Your task to perform on an android device: Open notification settings Image 0: 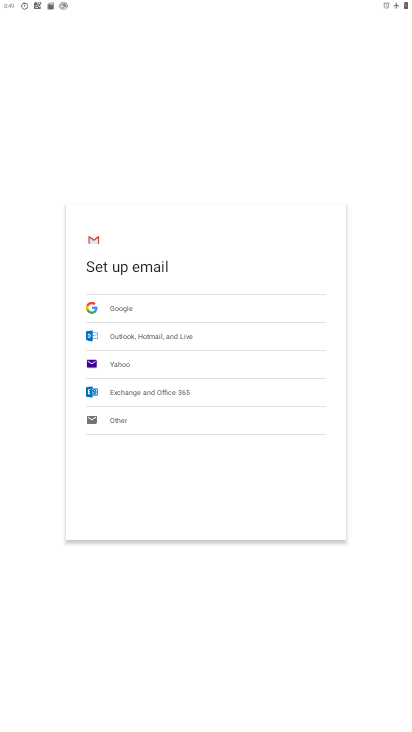
Step 0: press home button
Your task to perform on an android device: Open notification settings Image 1: 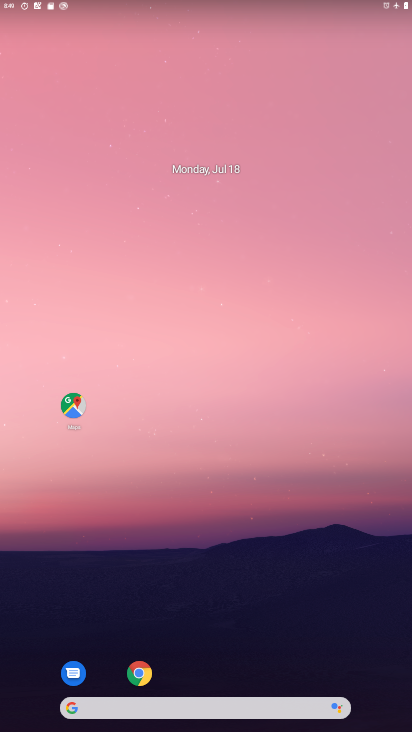
Step 1: drag from (194, 637) to (171, 208)
Your task to perform on an android device: Open notification settings Image 2: 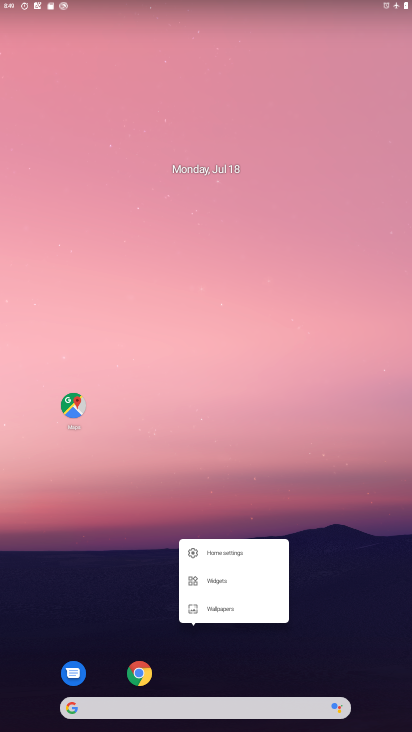
Step 2: click (273, 672)
Your task to perform on an android device: Open notification settings Image 3: 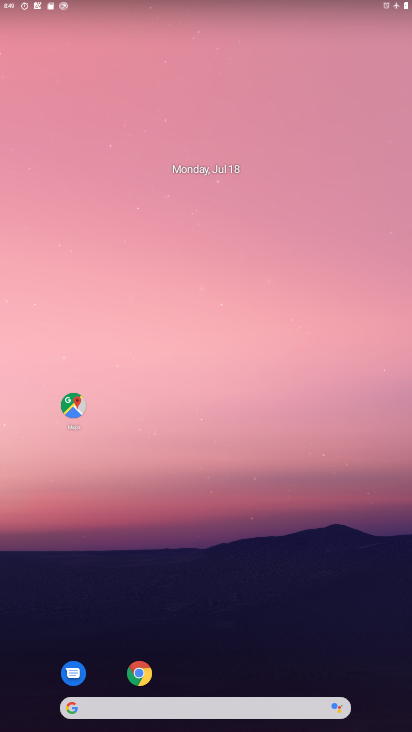
Step 3: drag from (192, 263) to (195, 24)
Your task to perform on an android device: Open notification settings Image 4: 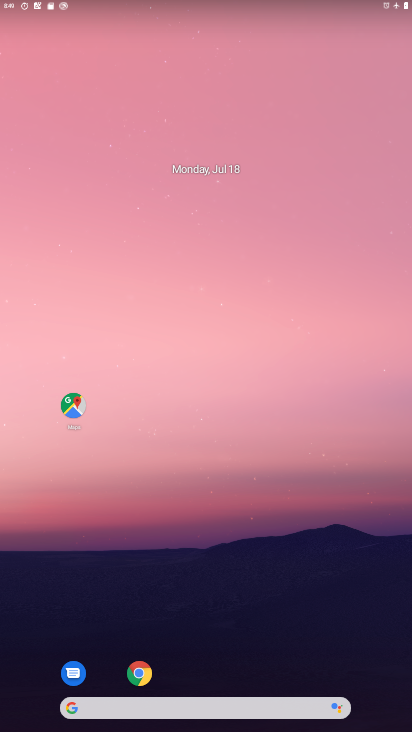
Step 4: drag from (198, 538) to (197, 200)
Your task to perform on an android device: Open notification settings Image 5: 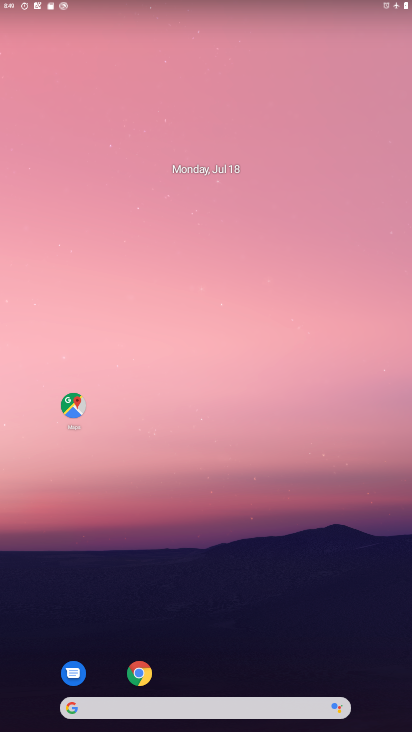
Step 5: drag from (187, 570) to (160, 9)
Your task to perform on an android device: Open notification settings Image 6: 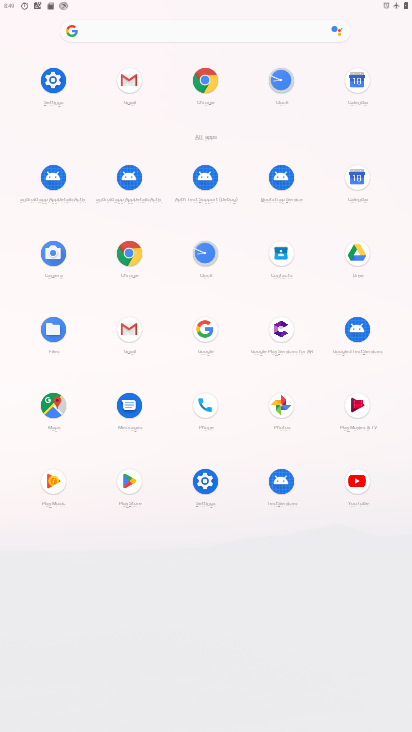
Step 6: click (210, 492)
Your task to perform on an android device: Open notification settings Image 7: 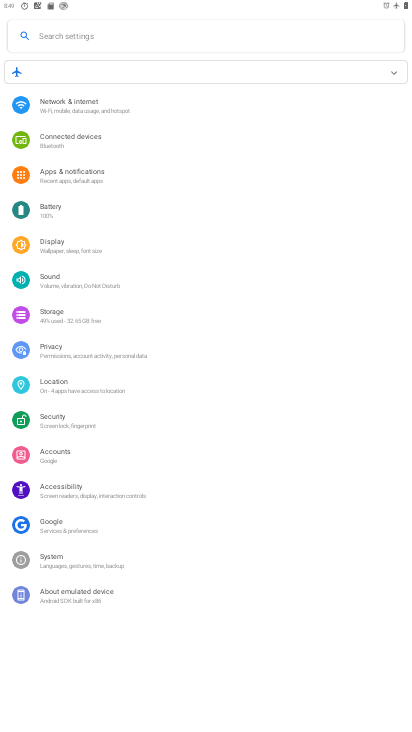
Step 7: click (57, 176)
Your task to perform on an android device: Open notification settings Image 8: 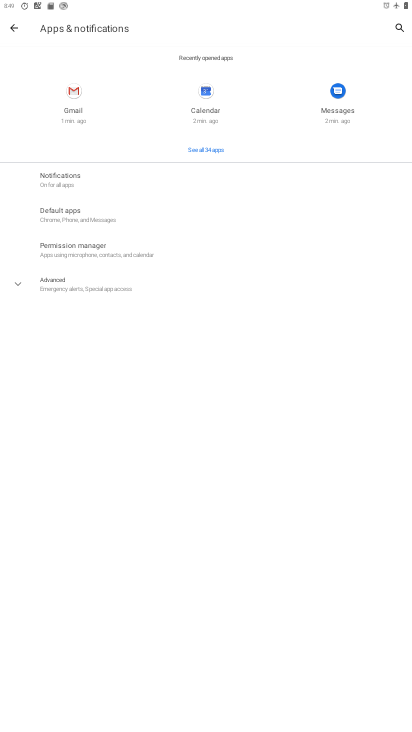
Step 8: task complete